Your task to perform on an android device: see tabs open on other devices in the chrome app Image 0: 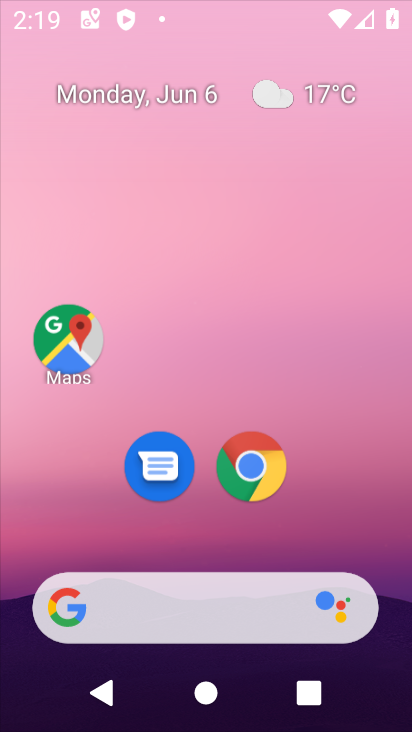
Step 0: press back button
Your task to perform on an android device: see tabs open on other devices in the chrome app Image 1: 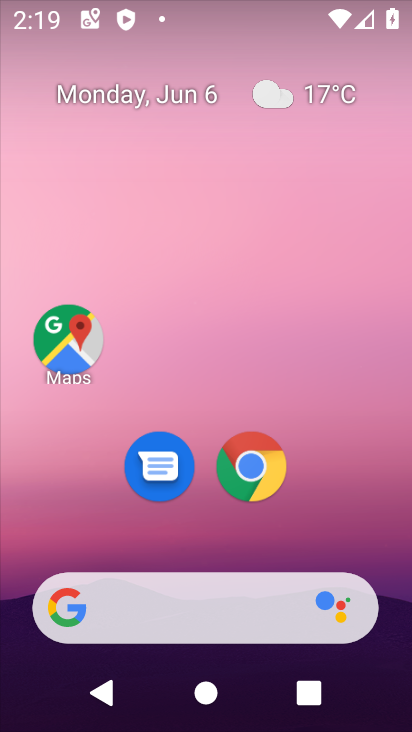
Step 1: drag from (260, 694) to (159, 17)
Your task to perform on an android device: see tabs open on other devices in the chrome app Image 2: 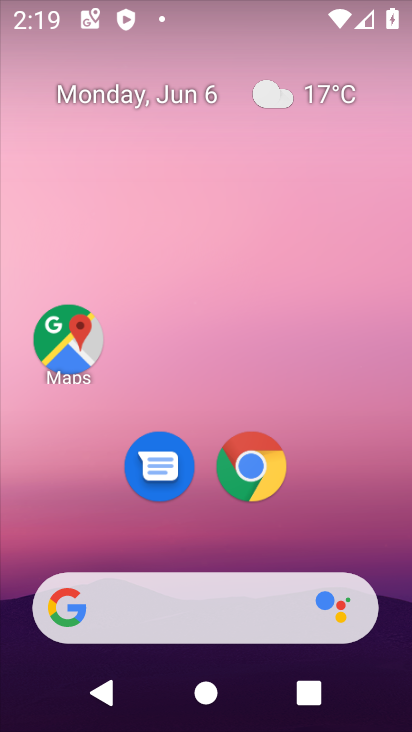
Step 2: drag from (207, 416) to (207, 210)
Your task to perform on an android device: see tabs open on other devices in the chrome app Image 3: 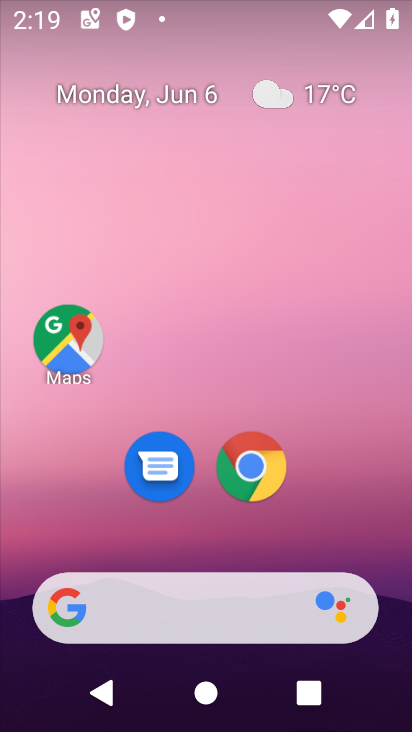
Step 3: drag from (238, 640) to (112, 151)
Your task to perform on an android device: see tabs open on other devices in the chrome app Image 4: 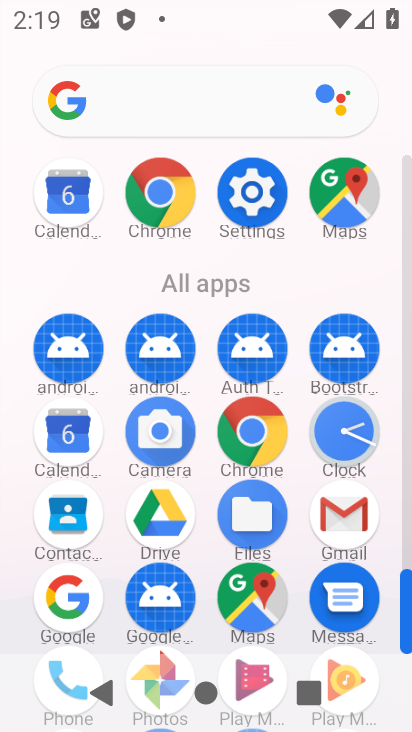
Step 4: click (162, 226)
Your task to perform on an android device: see tabs open on other devices in the chrome app Image 5: 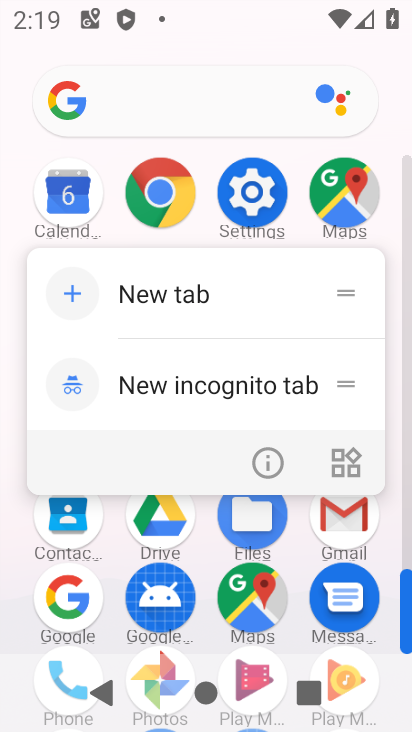
Step 5: click (151, 202)
Your task to perform on an android device: see tabs open on other devices in the chrome app Image 6: 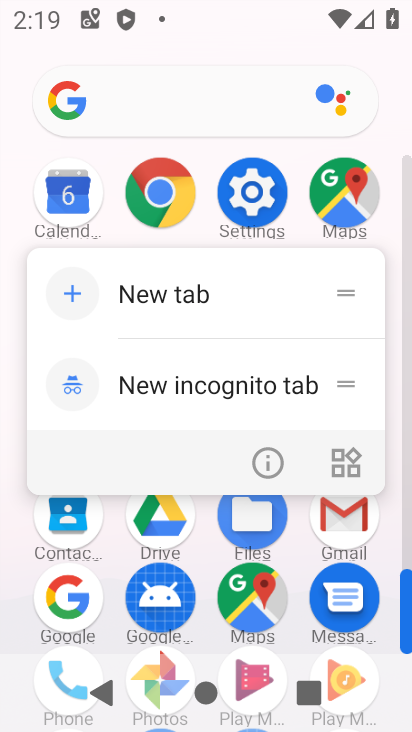
Step 6: click (171, 208)
Your task to perform on an android device: see tabs open on other devices in the chrome app Image 7: 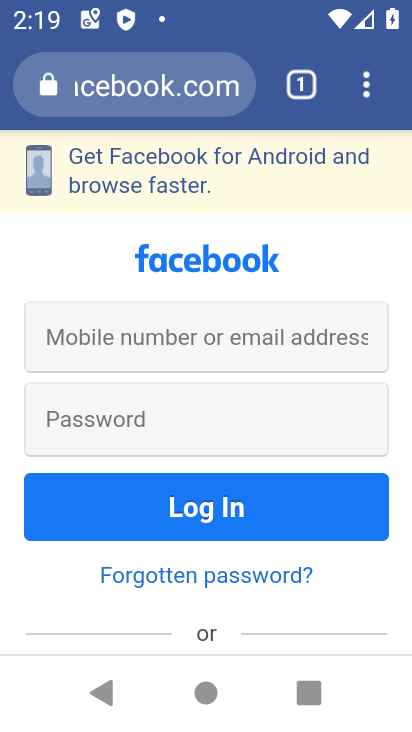
Step 7: press back button
Your task to perform on an android device: see tabs open on other devices in the chrome app Image 8: 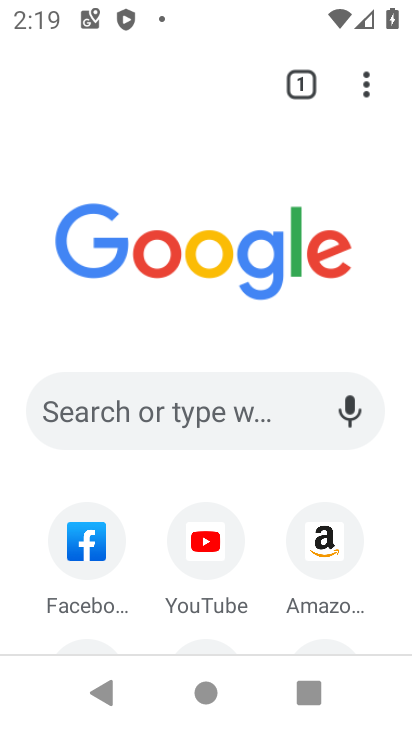
Step 8: click (365, 93)
Your task to perform on an android device: see tabs open on other devices in the chrome app Image 9: 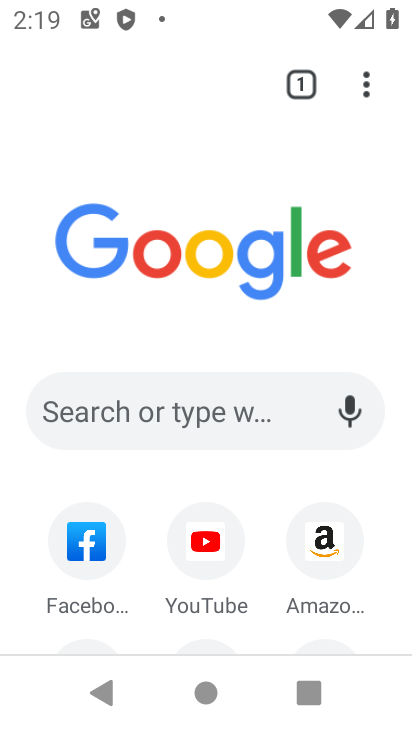
Step 9: drag from (364, 85) to (91, 401)
Your task to perform on an android device: see tabs open on other devices in the chrome app Image 10: 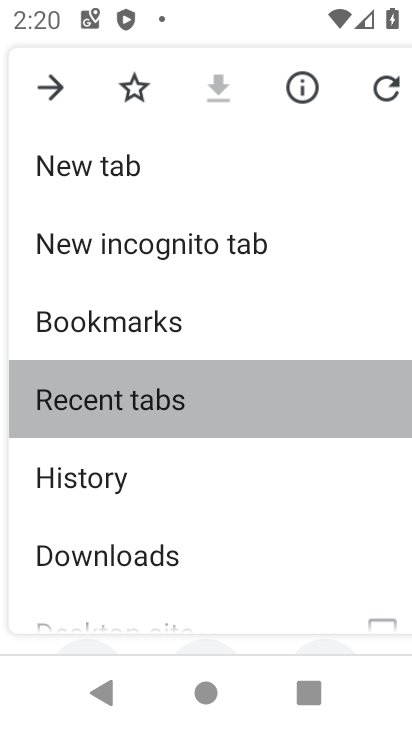
Step 10: click (91, 401)
Your task to perform on an android device: see tabs open on other devices in the chrome app Image 11: 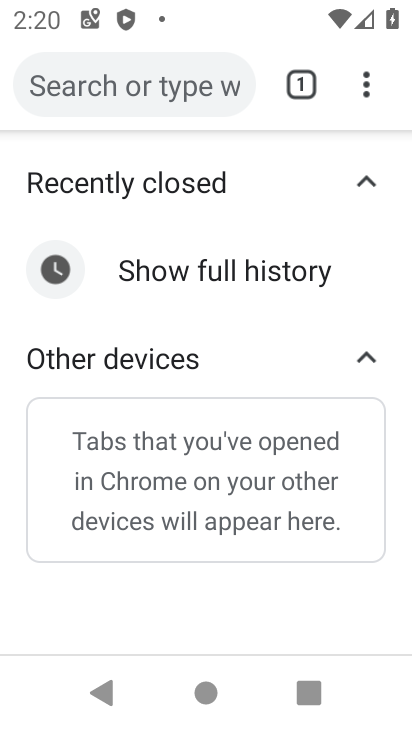
Step 11: click (97, 397)
Your task to perform on an android device: see tabs open on other devices in the chrome app Image 12: 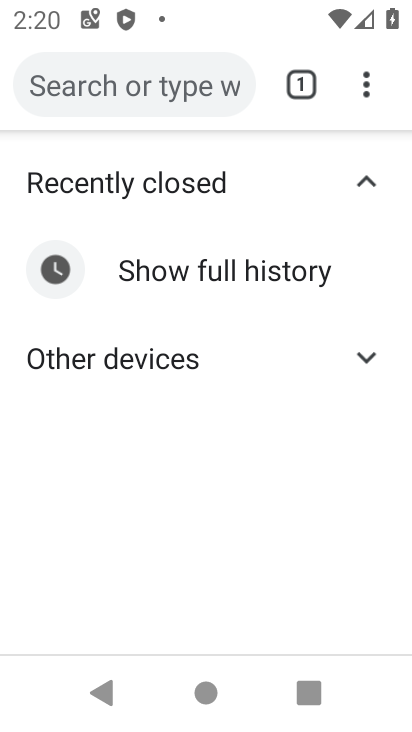
Step 12: drag from (188, 519) to (140, 114)
Your task to perform on an android device: see tabs open on other devices in the chrome app Image 13: 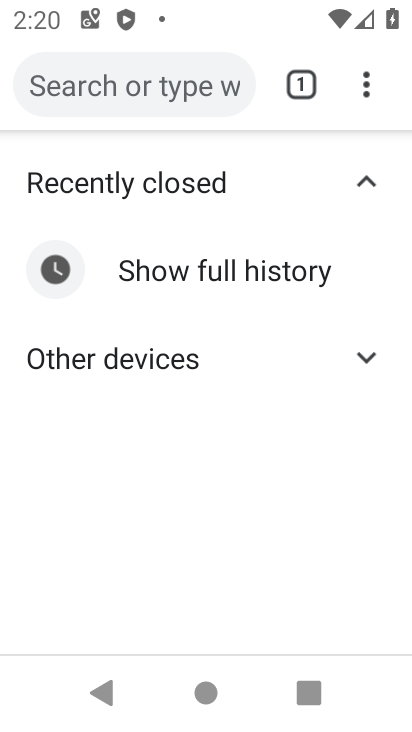
Step 13: drag from (151, 421) to (97, 60)
Your task to perform on an android device: see tabs open on other devices in the chrome app Image 14: 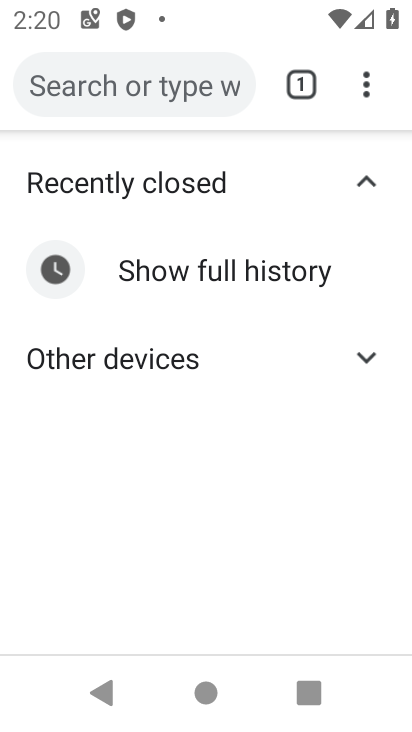
Step 14: click (181, 75)
Your task to perform on an android device: see tabs open on other devices in the chrome app Image 15: 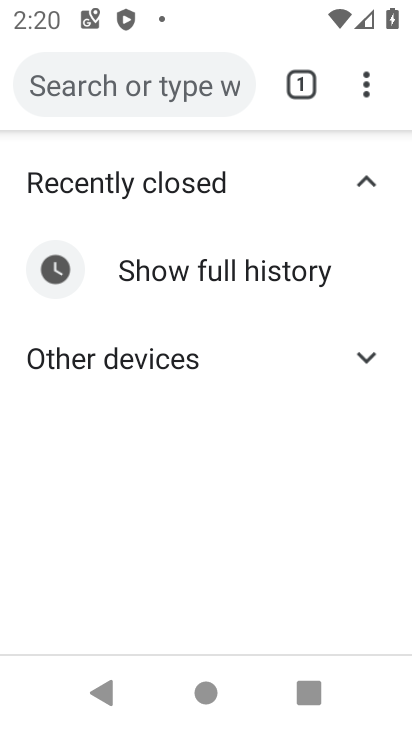
Step 15: task complete